Your task to perform on an android device: open a bookmark in the chrome app Image 0: 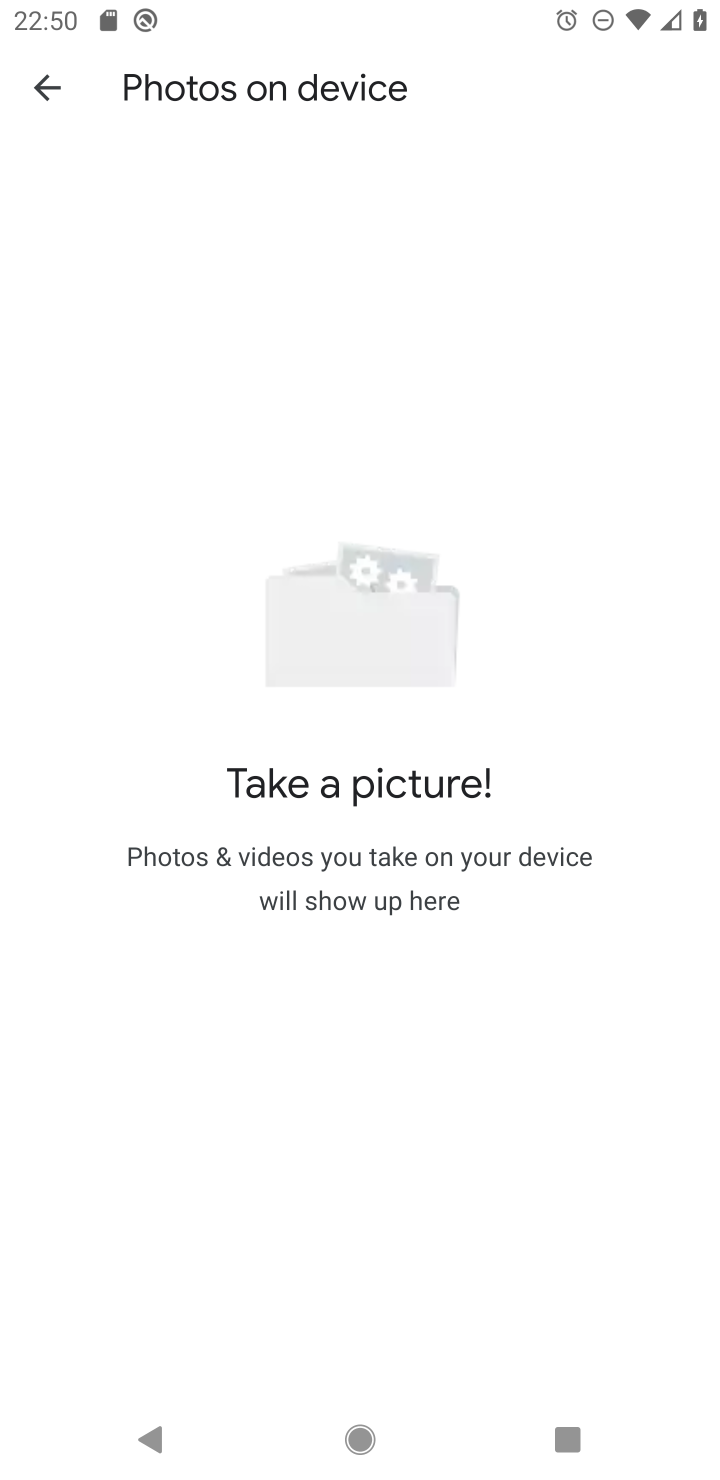
Step 0: press home button
Your task to perform on an android device: open a bookmark in the chrome app Image 1: 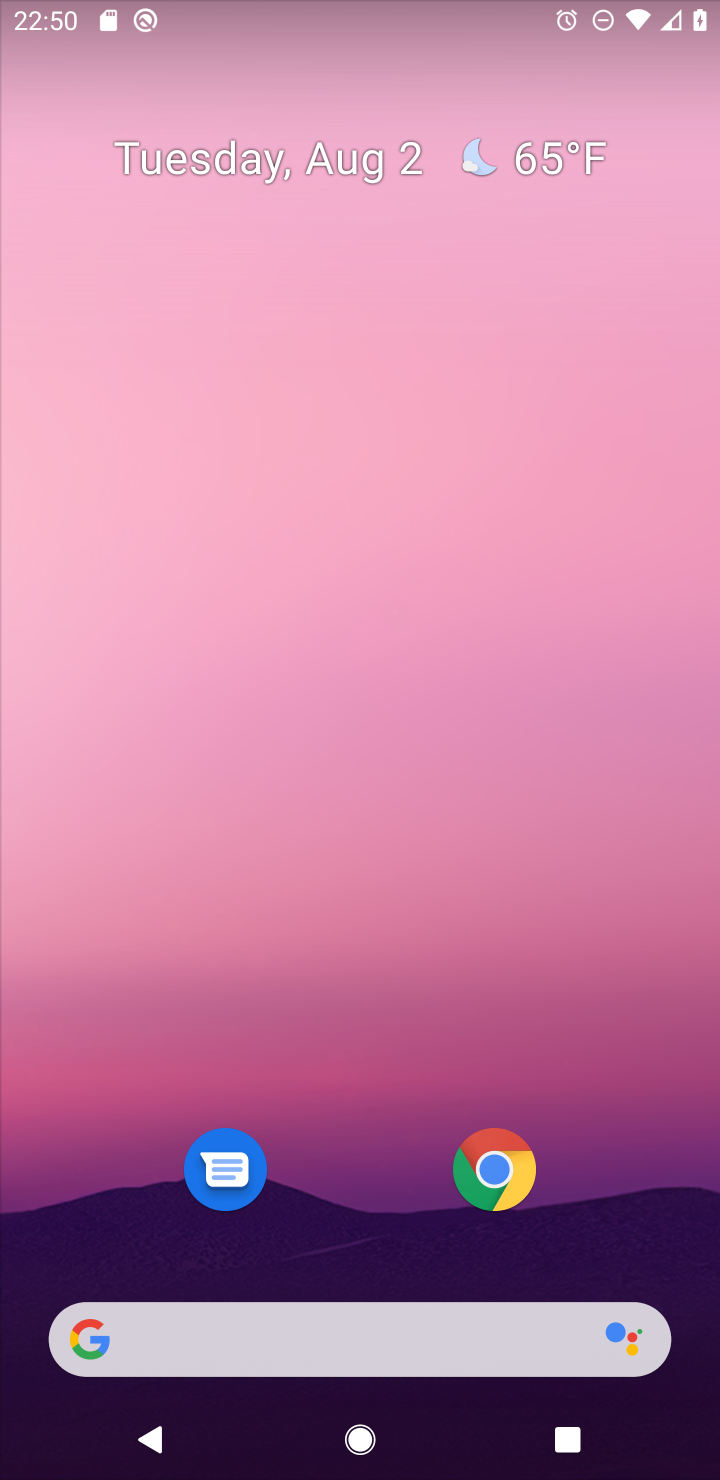
Step 1: click (501, 1175)
Your task to perform on an android device: open a bookmark in the chrome app Image 2: 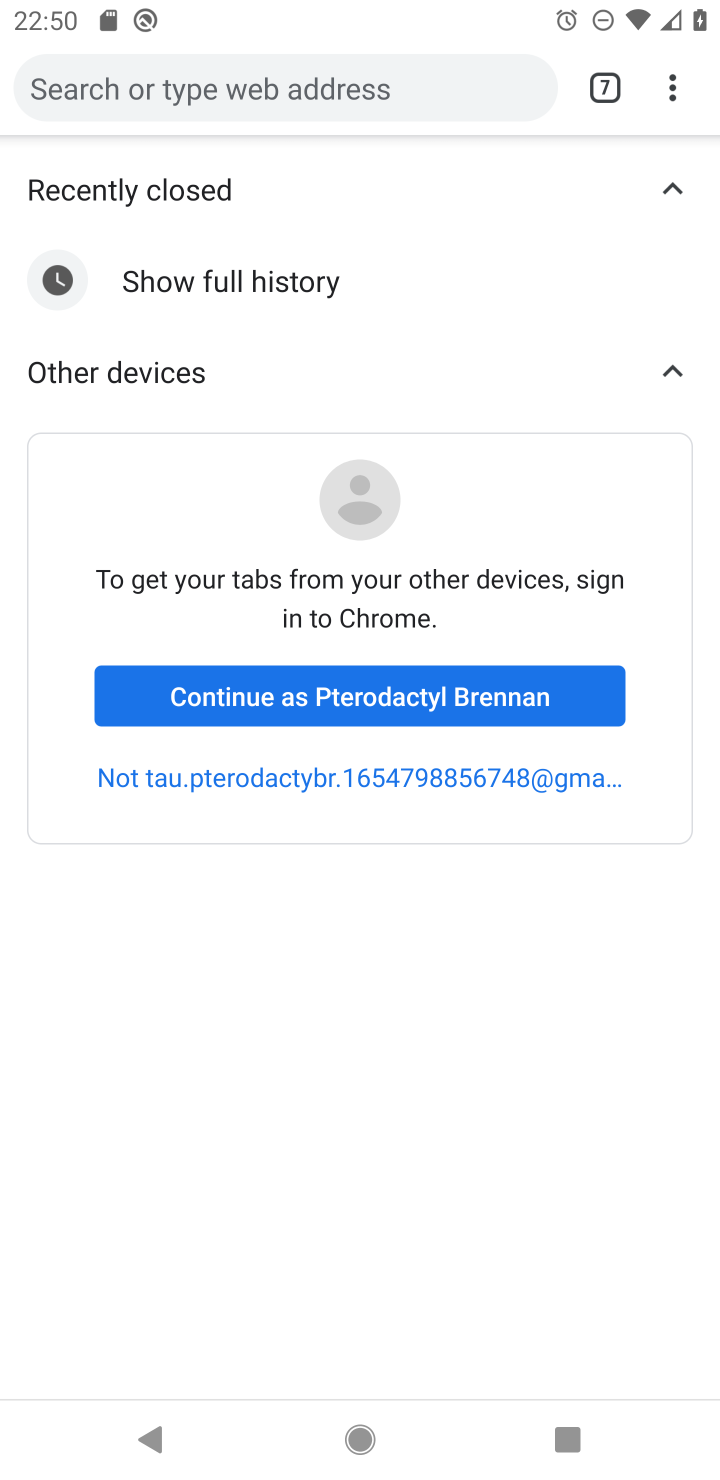
Step 2: click (670, 99)
Your task to perform on an android device: open a bookmark in the chrome app Image 3: 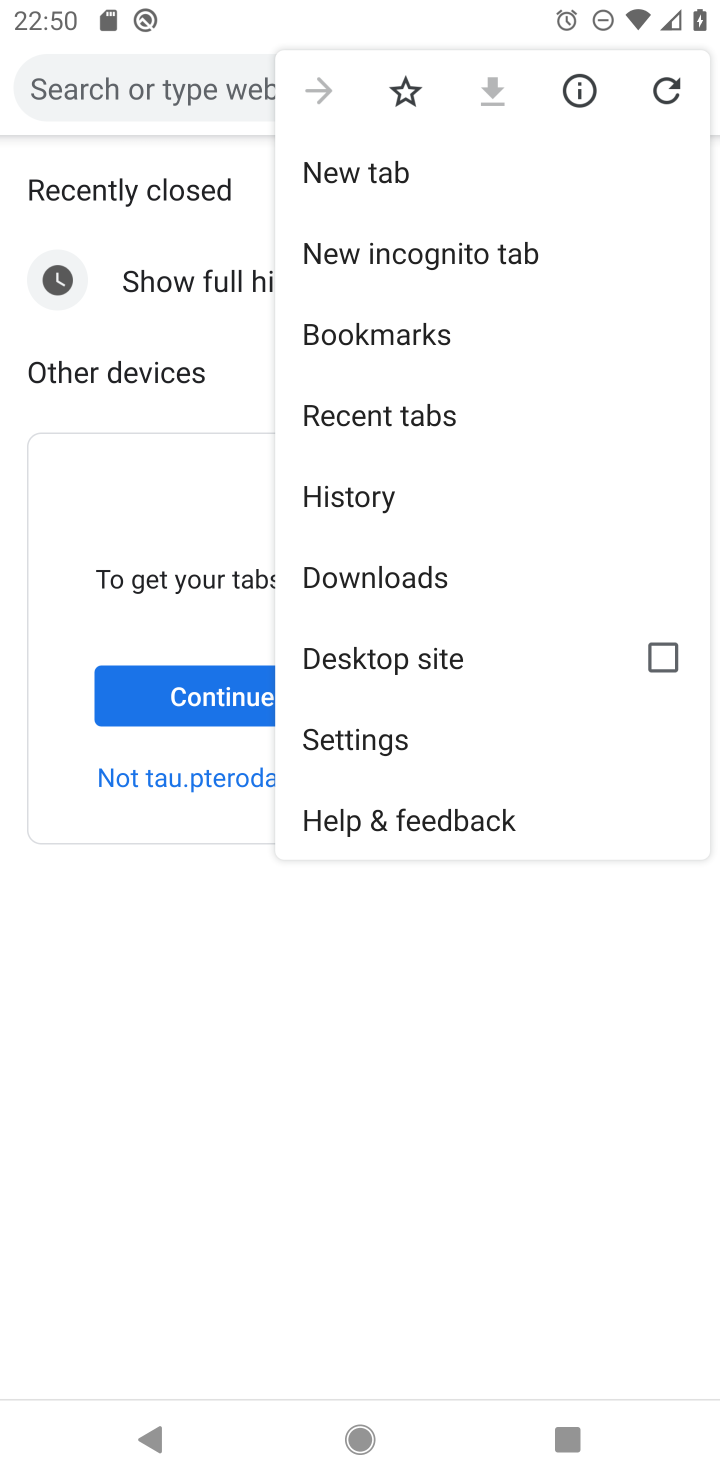
Step 3: click (408, 332)
Your task to perform on an android device: open a bookmark in the chrome app Image 4: 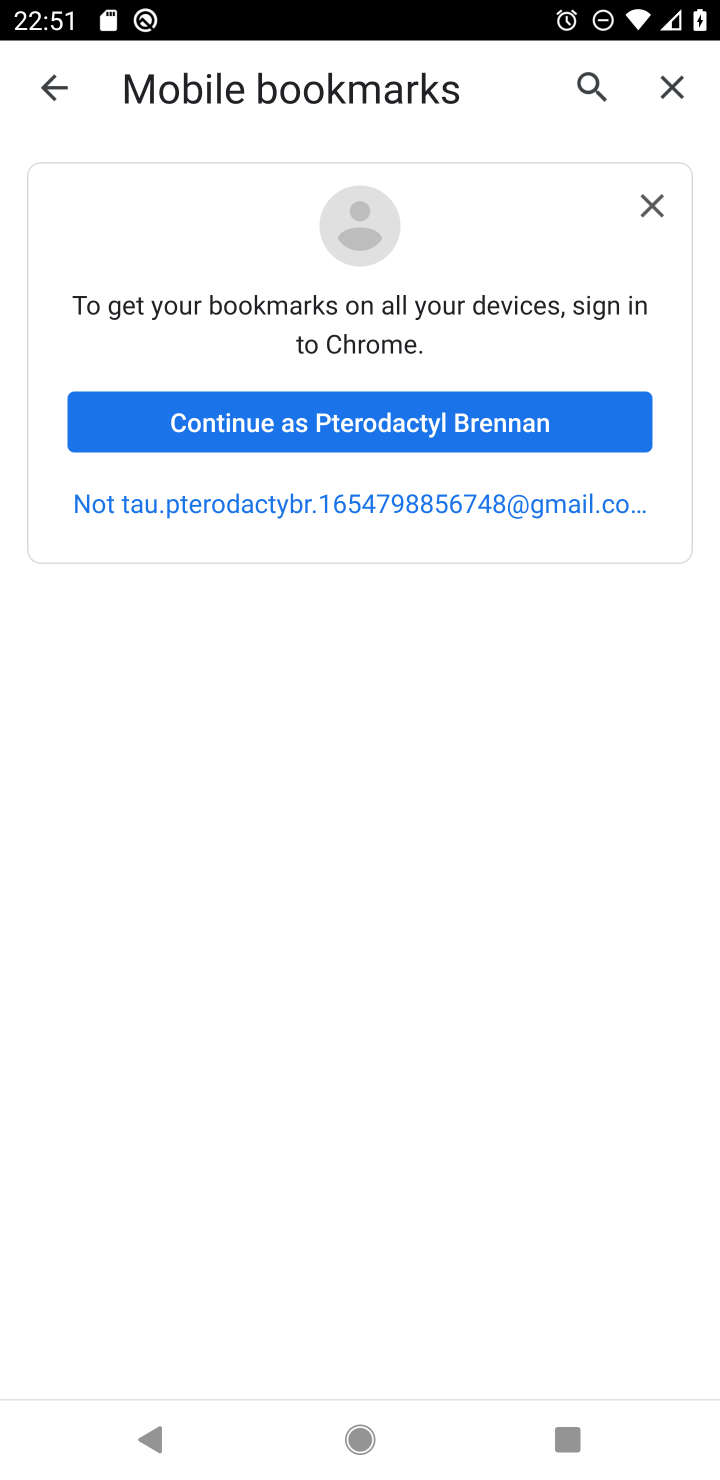
Step 4: task complete